Your task to perform on an android device: Is it going to rain this weekend? Image 0: 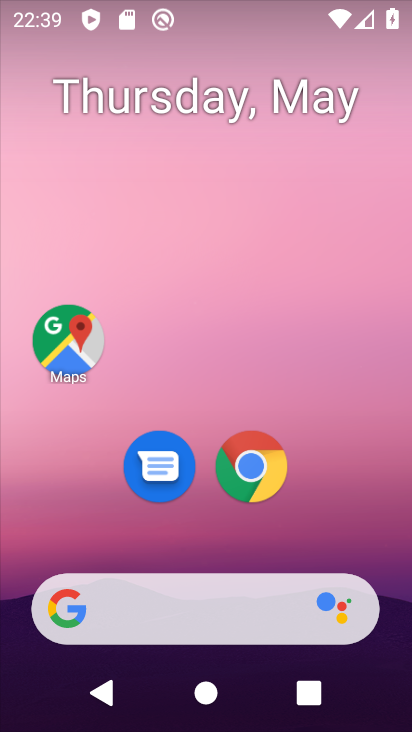
Step 0: drag from (340, 469) to (344, 1)
Your task to perform on an android device: Is it going to rain this weekend? Image 1: 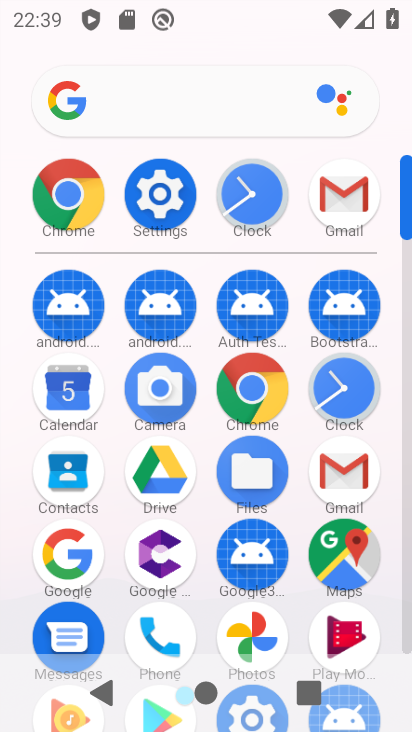
Step 1: click (261, 403)
Your task to perform on an android device: Is it going to rain this weekend? Image 2: 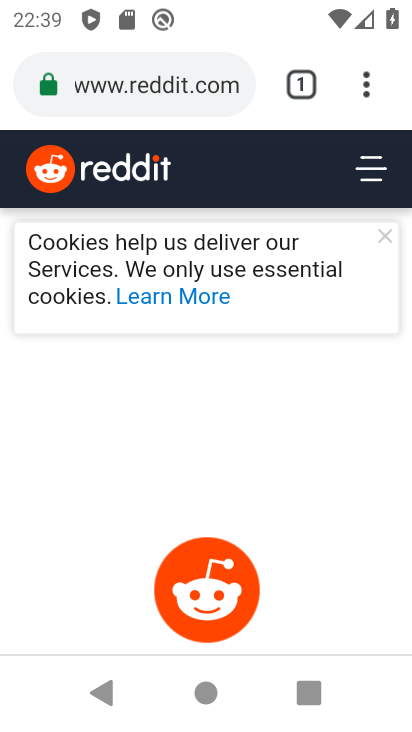
Step 2: click (222, 90)
Your task to perform on an android device: Is it going to rain this weekend? Image 3: 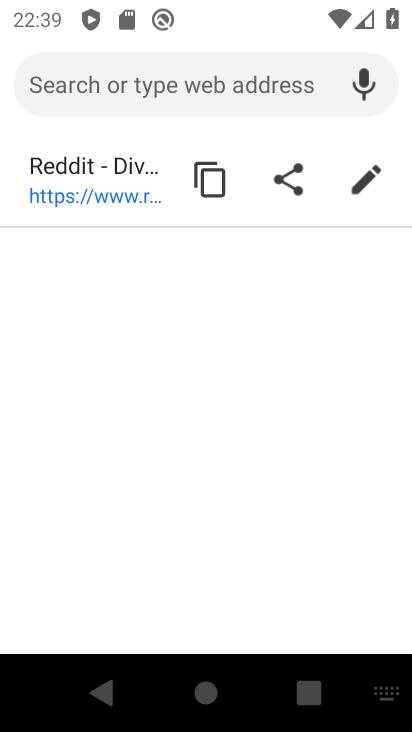
Step 3: type "weather"
Your task to perform on an android device: Is it going to rain this weekend? Image 4: 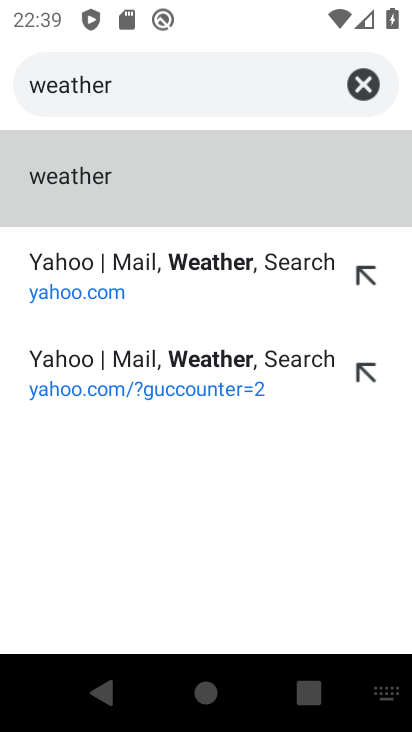
Step 4: click (91, 184)
Your task to perform on an android device: Is it going to rain this weekend? Image 5: 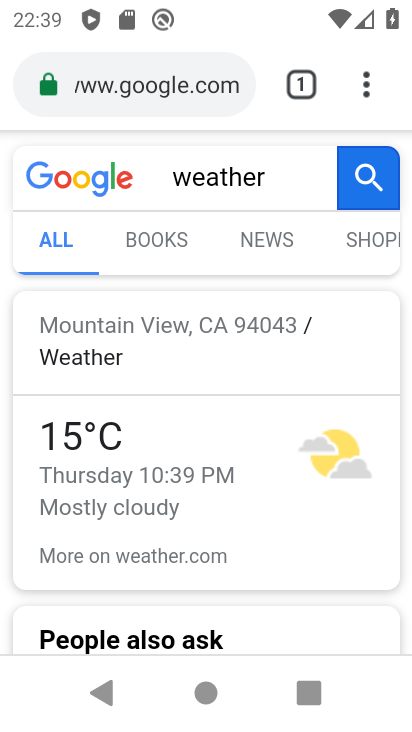
Step 5: drag from (277, 538) to (268, 259)
Your task to perform on an android device: Is it going to rain this weekend? Image 6: 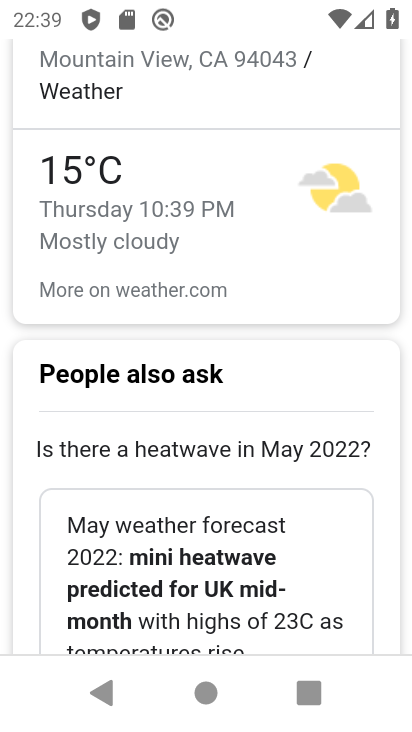
Step 6: click (159, 230)
Your task to perform on an android device: Is it going to rain this weekend? Image 7: 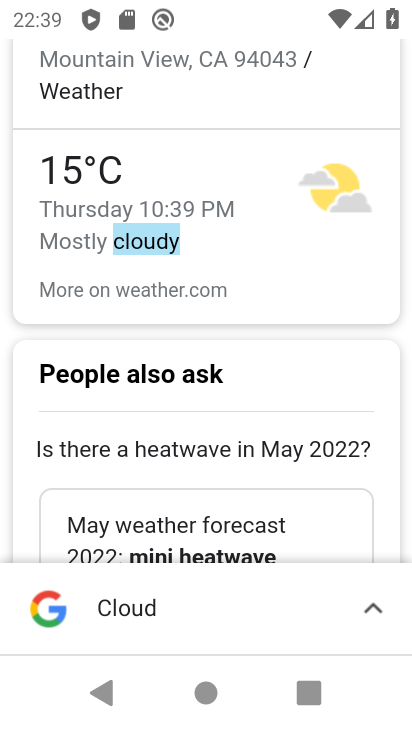
Step 7: click (150, 147)
Your task to perform on an android device: Is it going to rain this weekend? Image 8: 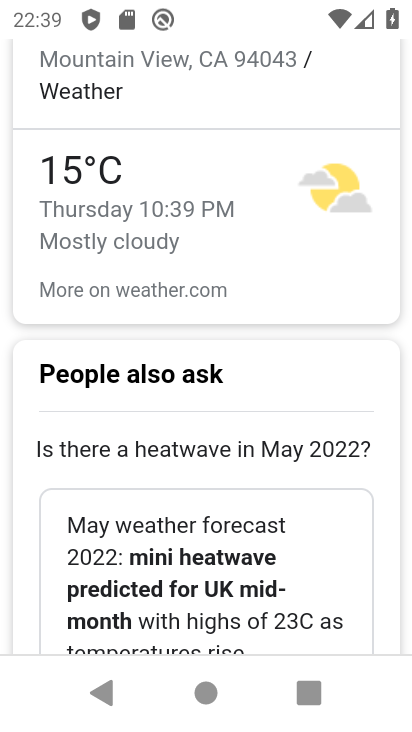
Step 8: click (105, 88)
Your task to perform on an android device: Is it going to rain this weekend? Image 9: 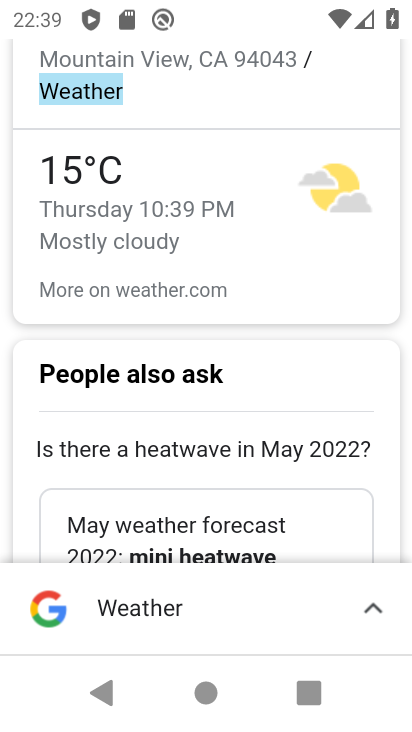
Step 9: click (105, 88)
Your task to perform on an android device: Is it going to rain this weekend? Image 10: 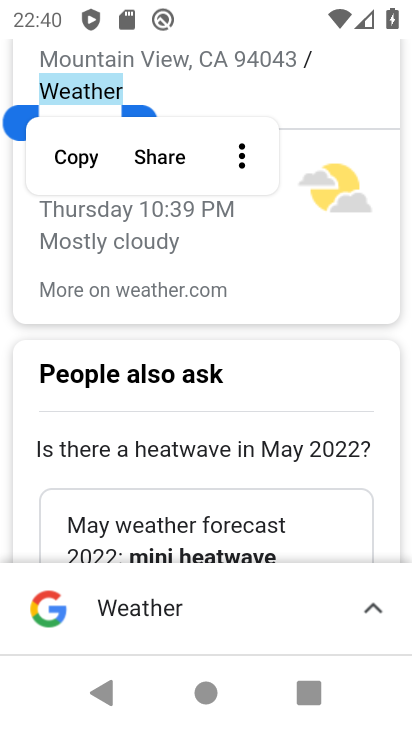
Step 10: drag from (284, 356) to (313, 64)
Your task to perform on an android device: Is it going to rain this weekend? Image 11: 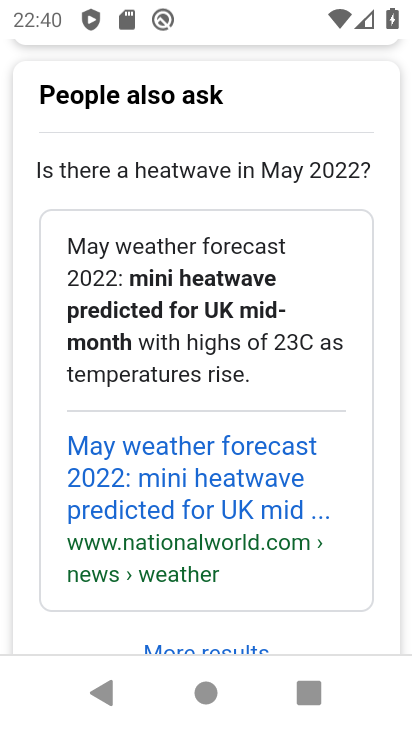
Step 11: drag from (273, 369) to (318, 63)
Your task to perform on an android device: Is it going to rain this weekend? Image 12: 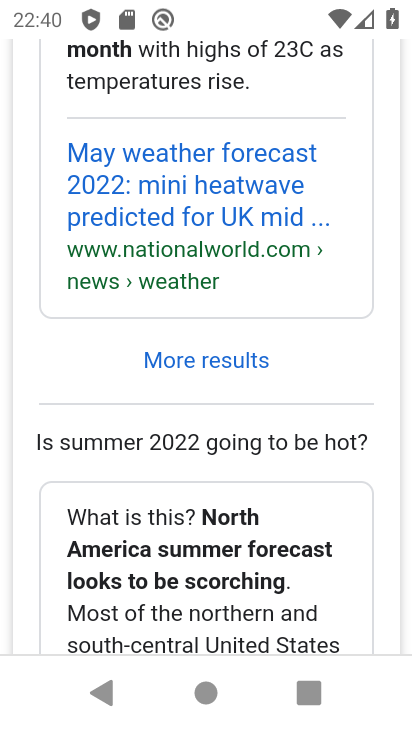
Step 12: click (202, 249)
Your task to perform on an android device: Is it going to rain this weekend? Image 13: 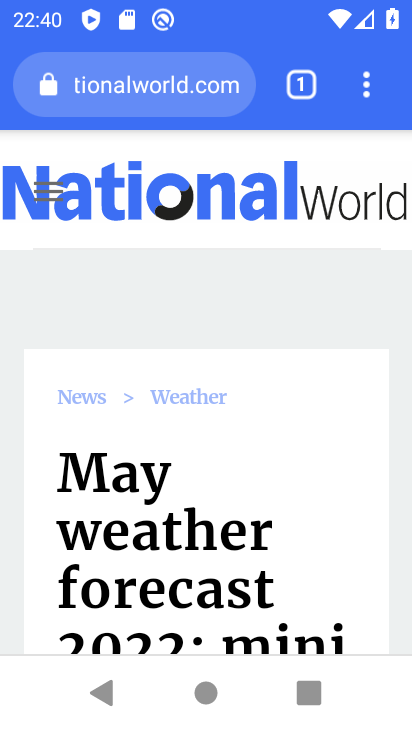
Step 13: drag from (228, 516) to (255, 85)
Your task to perform on an android device: Is it going to rain this weekend? Image 14: 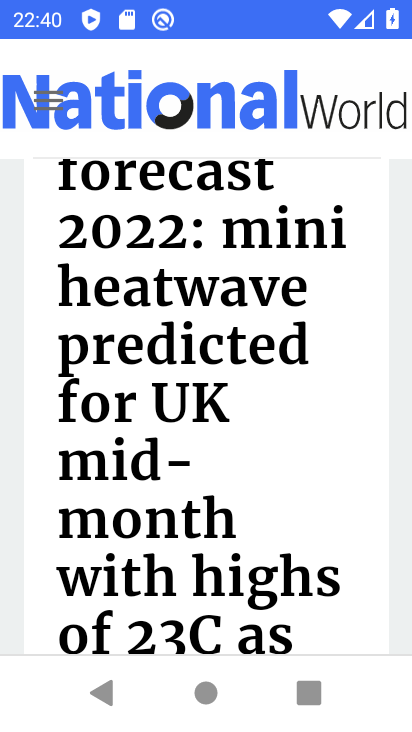
Step 14: drag from (206, 476) to (257, 56)
Your task to perform on an android device: Is it going to rain this weekend? Image 15: 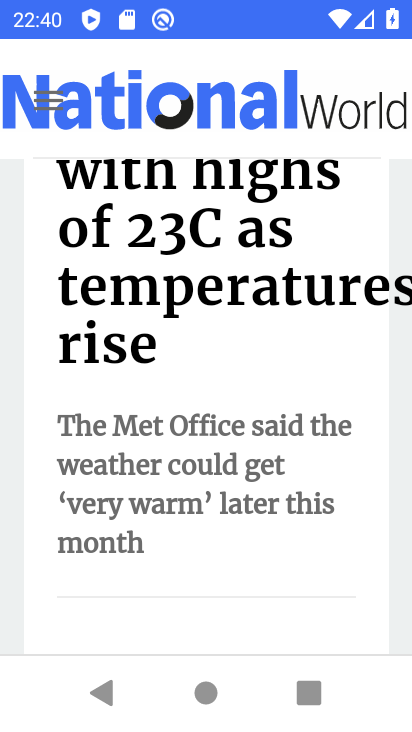
Step 15: press back button
Your task to perform on an android device: Is it going to rain this weekend? Image 16: 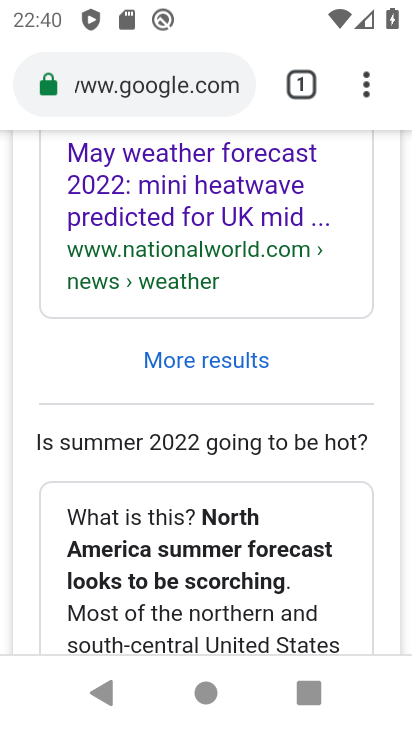
Step 16: drag from (240, 193) to (290, 730)
Your task to perform on an android device: Is it going to rain this weekend? Image 17: 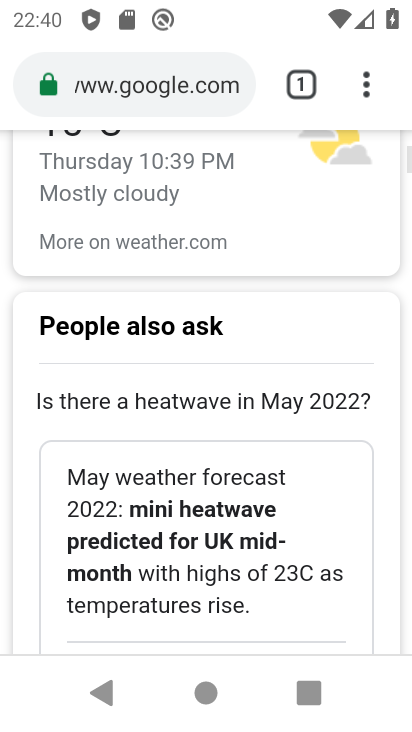
Step 17: drag from (245, 220) to (261, 643)
Your task to perform on an android device: Is it going to rain this weekend? Image 18: 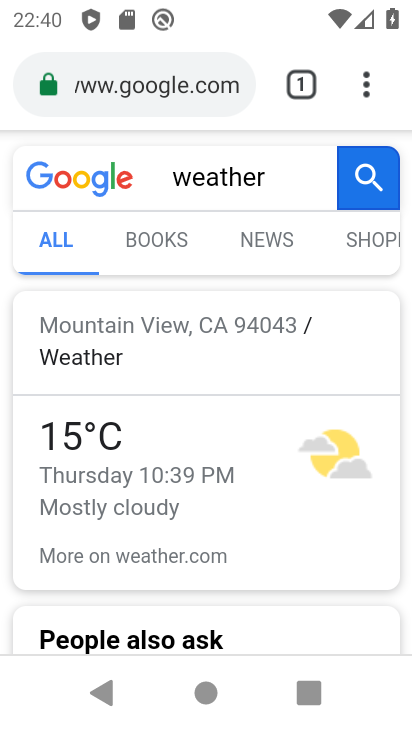
Step 18: click (165, 84)
Your task to perform on an android device: Is it going to rain this weekend? Image 19: 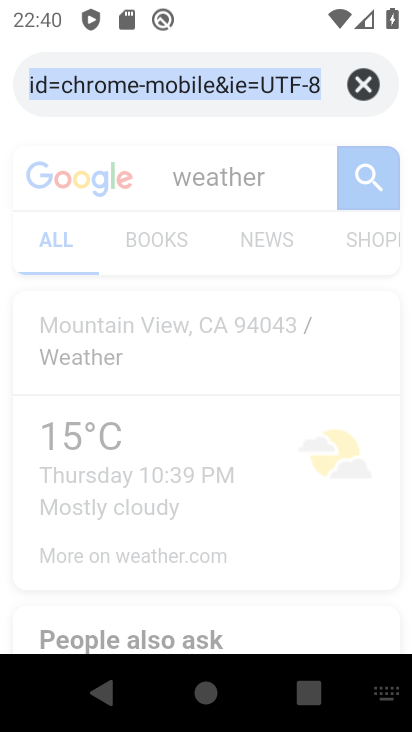
Step 19: type "weekend weather"
Your task to perform on an android device: Is it going to rain this weekend? Image 20: 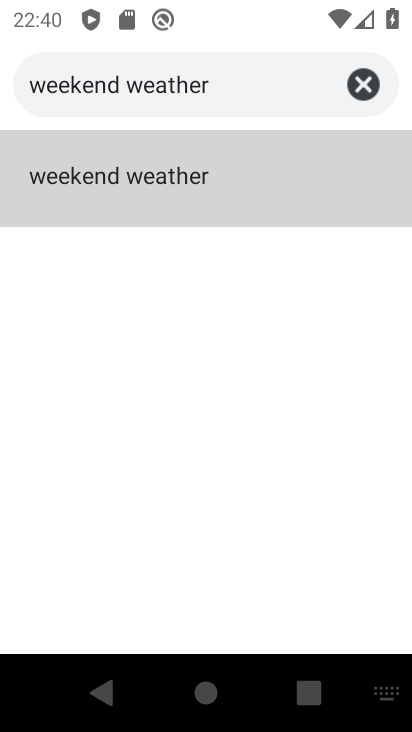
Step 20: click (165, 167)
Your task to perform on an android device: Is it going to rain this weekend? Image 21: 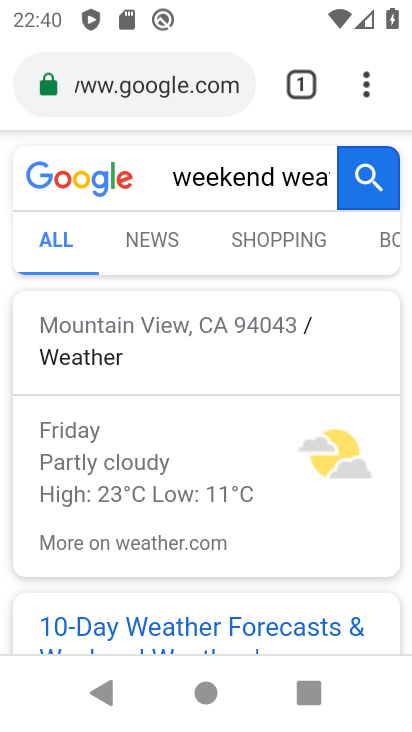
Step 21: drag from (240, 513) to (230, 221)
Your task to perform on an android device: Is it going to rain this weekend? Image 22: 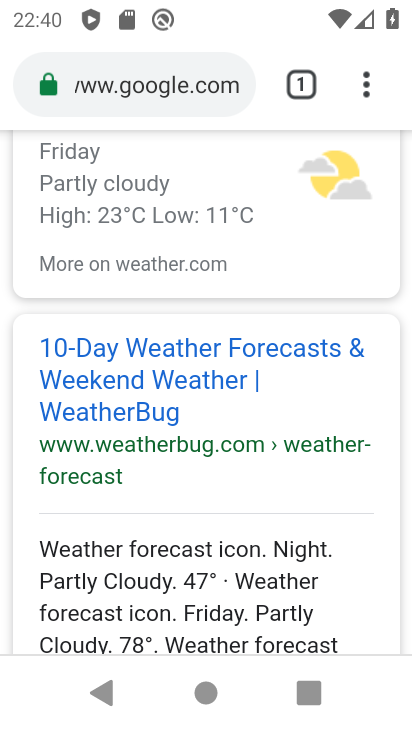
Step 22: click (181, 360)
Your task to perform on an android device: Is it going to rain this weekend? Image 23: 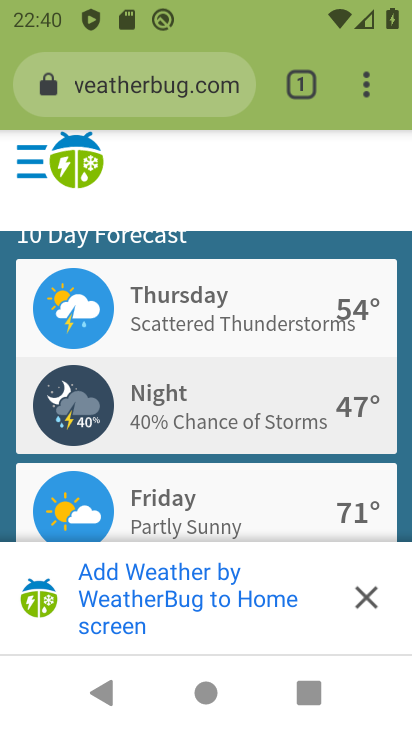
Step 23: task complete